Your task to perform on an android device: turn on showing notifications on the lock screen Image 0: 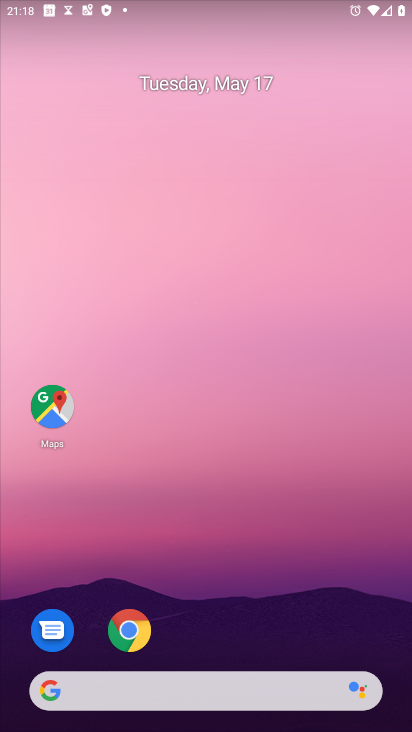
Step 0: drag from (188, 598) to (197, 249)
Your task to perform on an android device: turn on showing notifications on the lock screen Image 1: 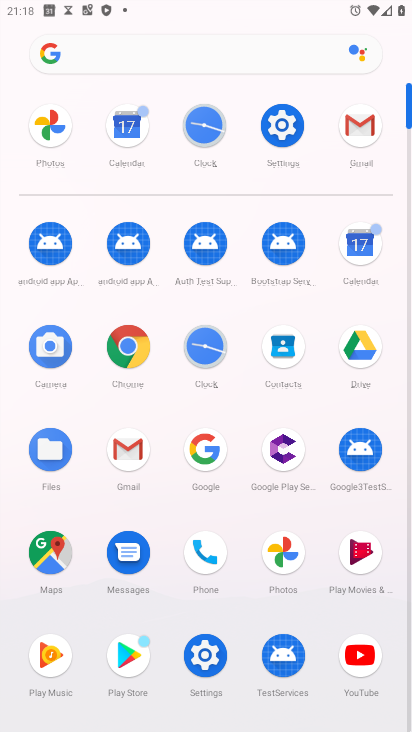
Step 1: click (195, 657)
Your task to perform on an android device: turn on showing notifications on the lock screen Image 2: 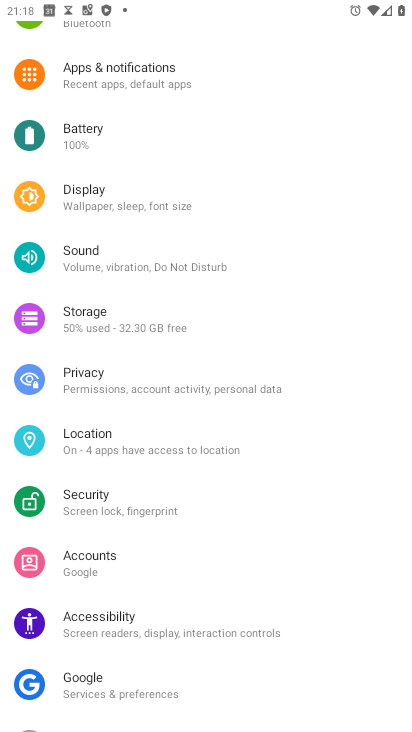
Step 2: click (157, 74)
Your task to perform on an android device: turn on showing notifications on the lock screen Image 3: 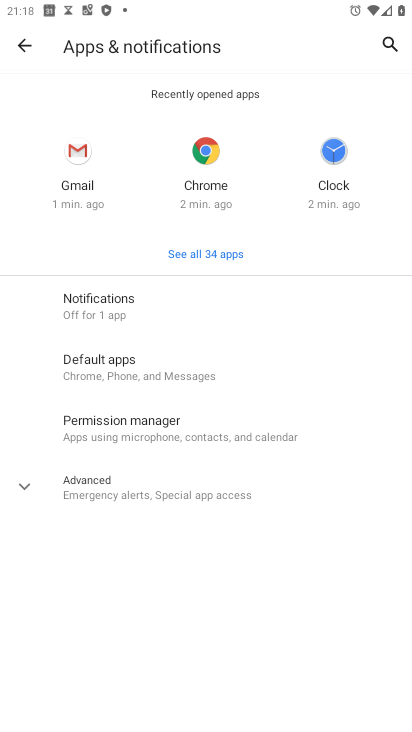
Step 3: click (120, 310)
Your task to perform on an android device: turn on showing notifications on the lock screen Image 4: 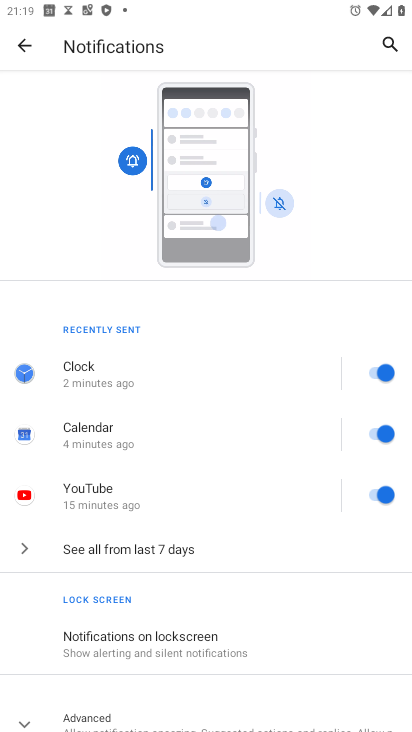
Step 4: task complete